Your task to perform on an android device: turn on javascript in the chrome app Image 0: 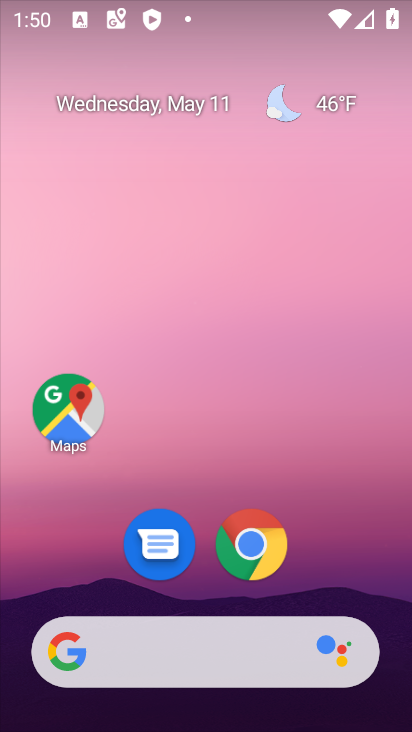
Step 0: click (252, 544)
Your task to perform on an android device: turn on javascript in the chrome app Image 1: 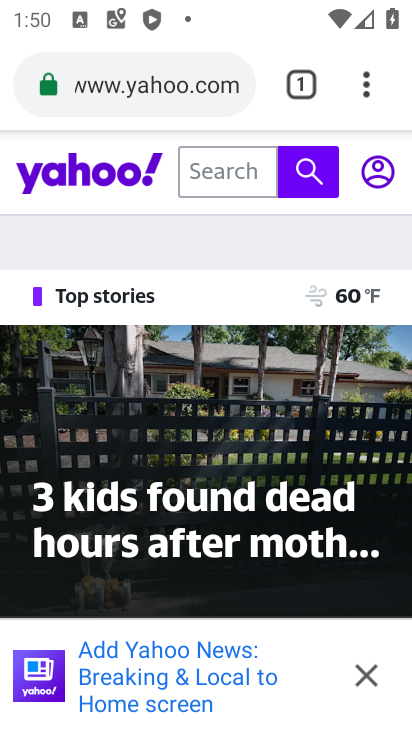
Step 1: click (366, 93)
Your task to perform on an android device: turn on javascript in the chrome app Image 2: 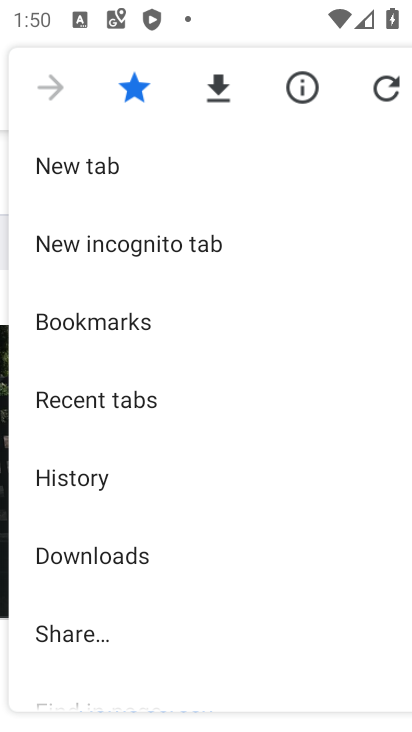
Step 2: drag from (178, 630) to (242, 280)
Your task to perform on an android device: turn on javascript in the chrome app Image 3: 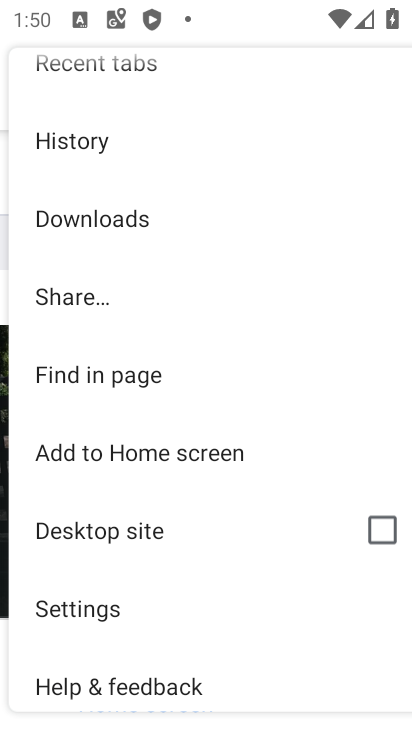
Step 3: drag from (209, 588) to (264, 342)
Your task to perform on an android device: turn on javascript in the chrome app Image 4: 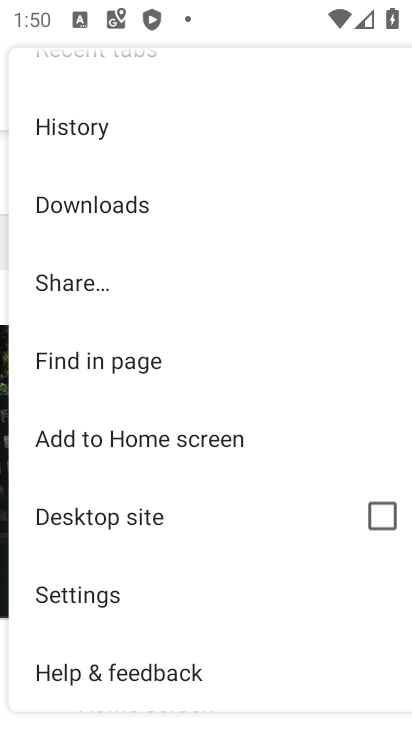
Step 4: click (66, 594)
Your task to perform on an android device: turn on javascript in the chrome app Image 5: 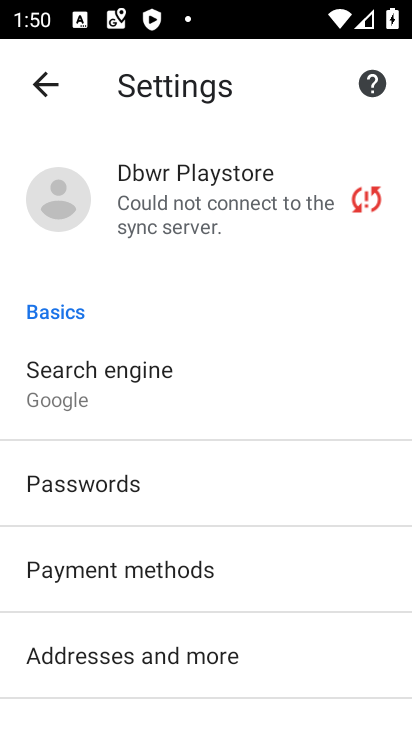
Step 5: drag from (285, 635) to (299, 276)
Your task to perform on an android device: turn on javascript in the chrome app Image 6: 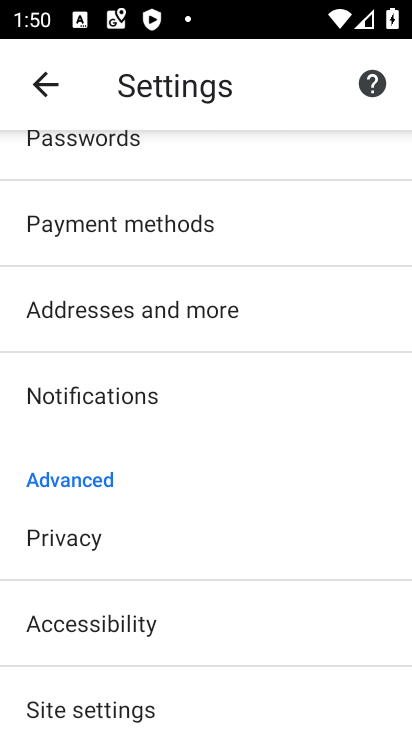
Step 6: drag from (233, 671) to (263, 312)
Your task to perform on an android device: turn on javascript in the chrome app Image 7: 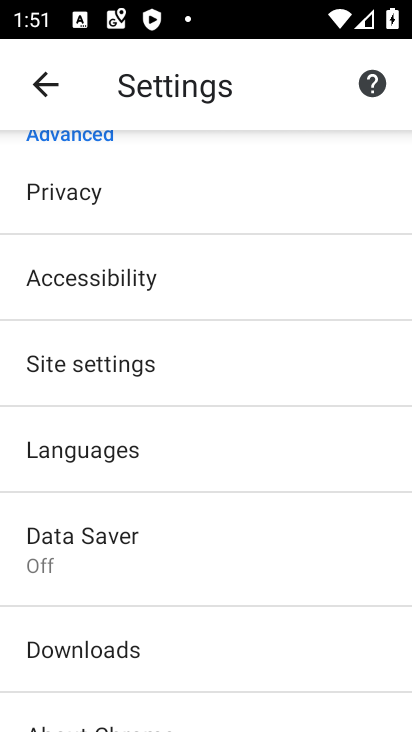
Step 7: click (46, 357)
Your task to perform on an android device: turn on javascript in the chrome app Image 8: 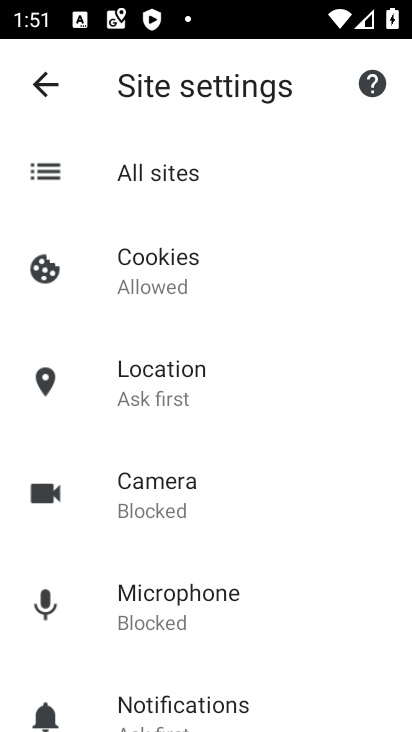
Step 8: drag from (285, 606) to (290, 212)
Your task to perform on an android device: turn on javascript in the chrome app Image 9: 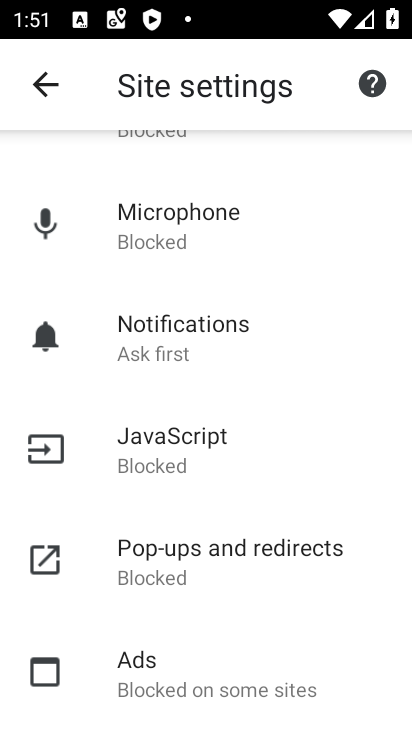
Step 9: click (145, 441)
Your task to perform on an android device: turn on javascript in the chrome app Image 10: 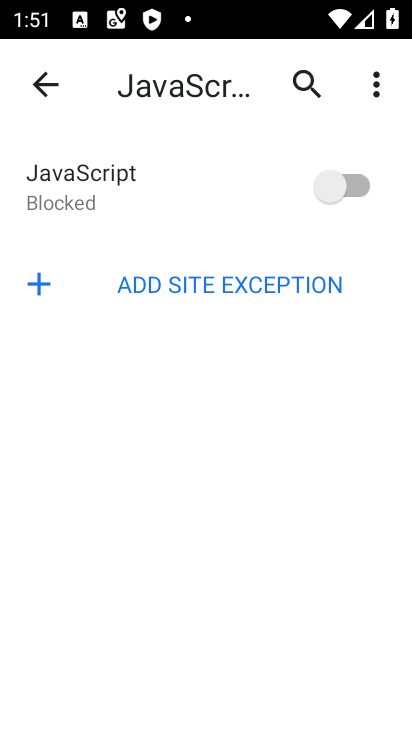
Step 10: click (356, 187)
Your task to perform on an android device: turn on javascript in the chrome app Image 11: 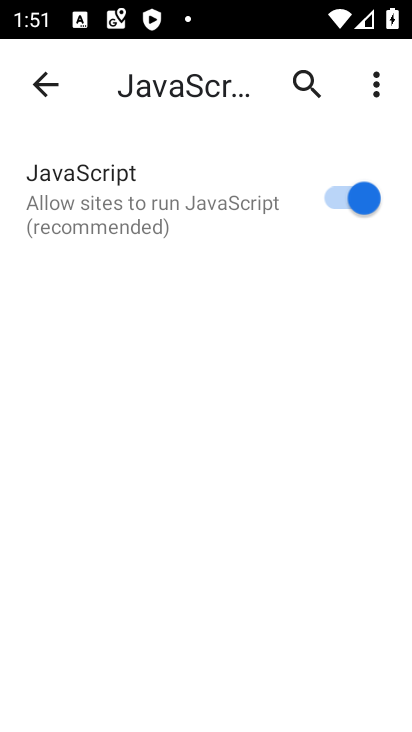
Step 11: task complete